Your task to perform on an android device: Set the phone to "Do not disturb". Image 0: 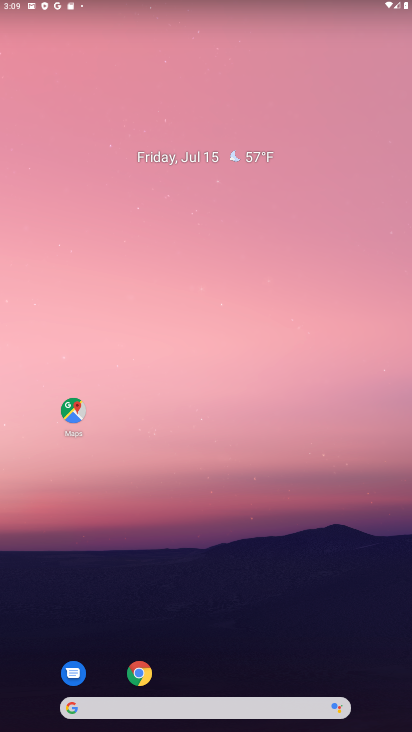
Step 0: drag from (233, 565) to (233, 88)
Your task to perform on an android device: Set the phone to "Do not disturb". Image 1: 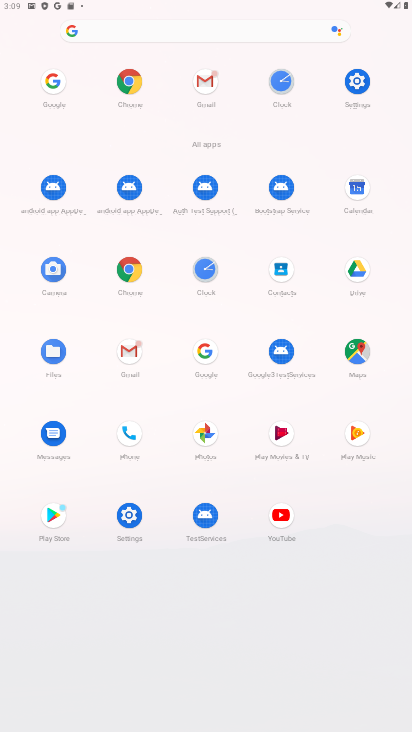
Step 1: click (362, 96)
Your task to perform on an android device: Set the phone to "Do not disturb". Image 2: 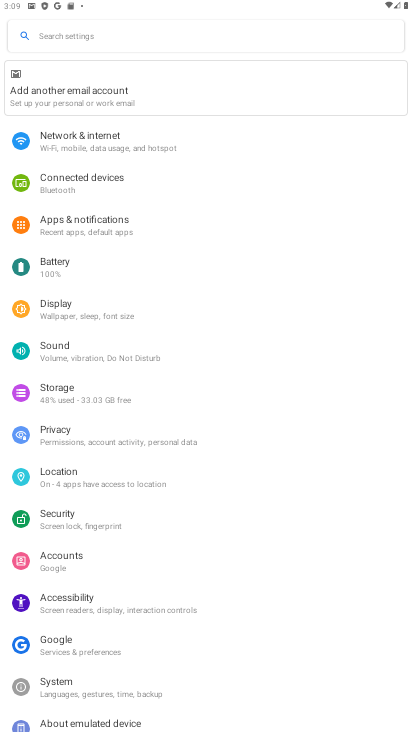
Step 2: click (56, 352)
Your task to perform on an android device: Set the phone to "Do not disturb". Image 3: 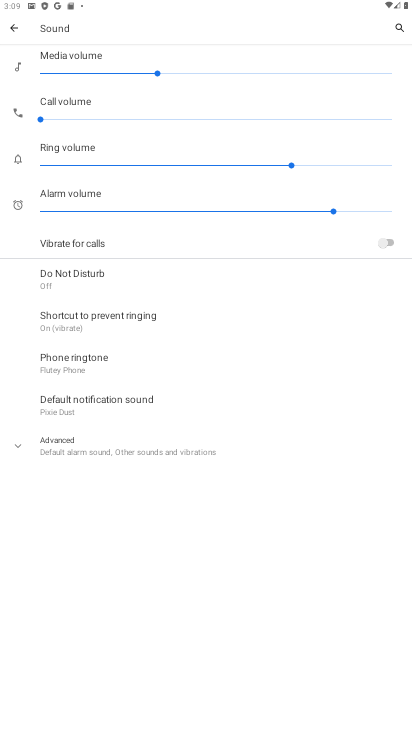
Step 3: click (56, 279)
Your task to perform on an android device: Set the phone to "Do not disturb". Image 4: 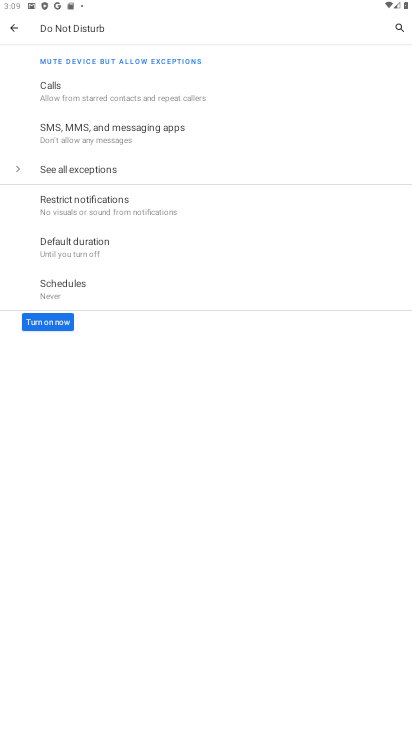
Step 4: click (42, 318)
Your task to perform on an android device: Set the phone to "Do not disturb". Image 5: 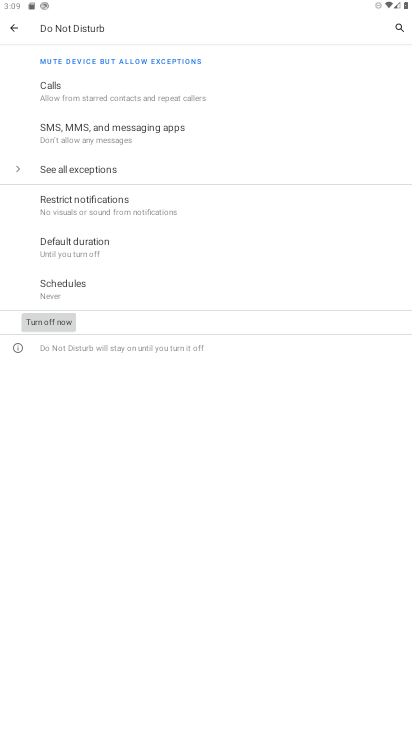
Step 5: task complete